Your task to perform on an android device: clear all cookies in the chrome app Image 0: 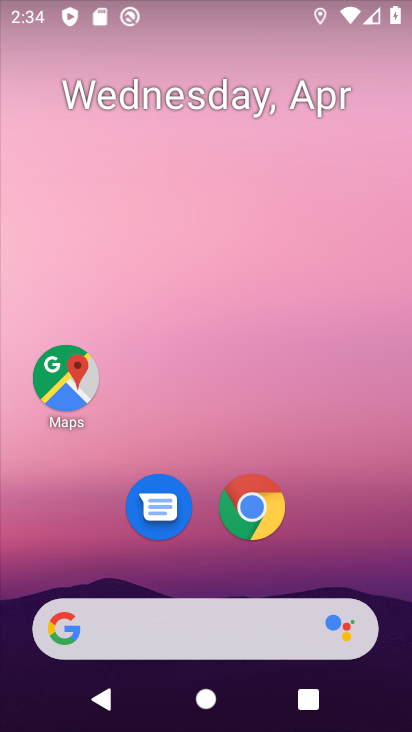
Step 0: drag from (343, 549) to (230, 249)
Your task to perform on an android device: clear all cookies in the chrome app Image 1: 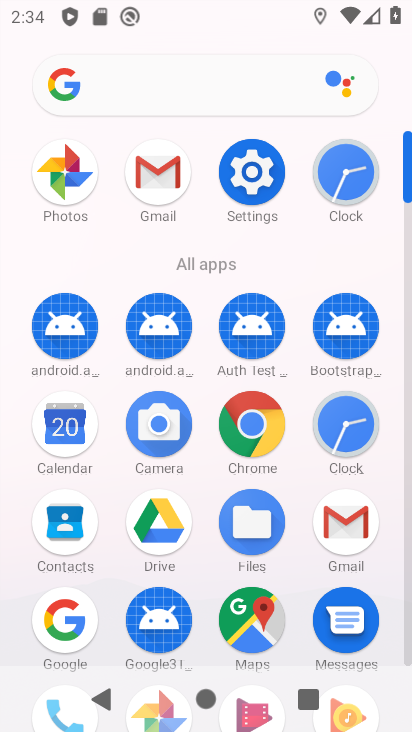
Step 1: click (257, 423)
Your task to perform on an android device: clear all cookies in the chrome app Image 2: 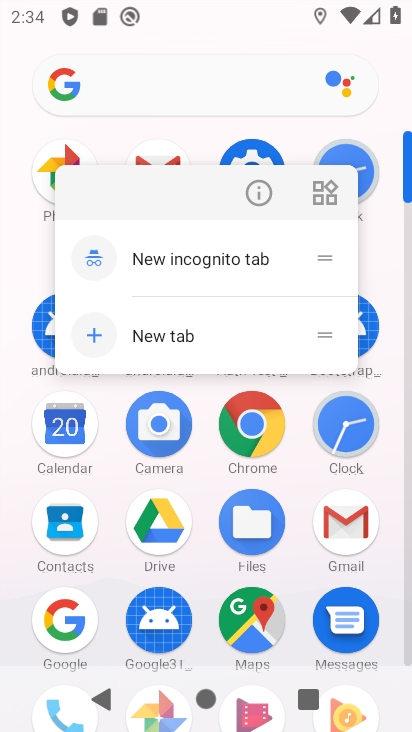
Step 2: click (257, 423)
Your task to perform on an android device: clear all cookies in the chrome app Image 3: 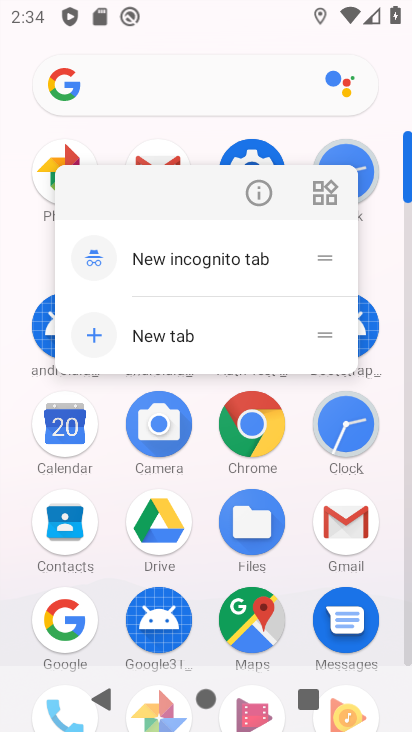
Step 3: click (259, 423)
Your task to perform on an android device: clear all cookies in the chrome app Image 4: 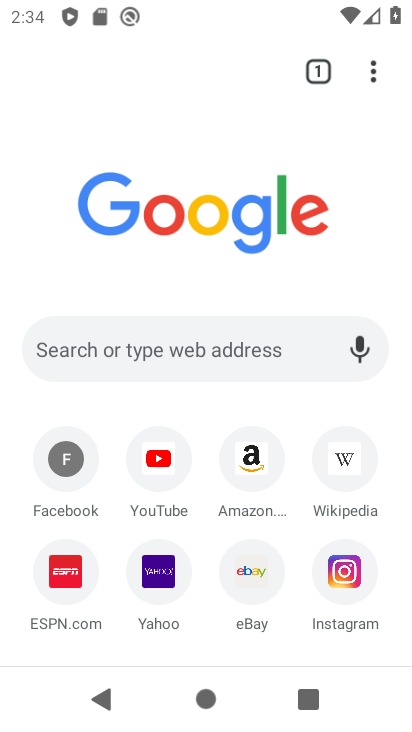
Step 4: click (372, 72)
Your task to perform on an android device: clear all cookies in the chrome app Image 5: 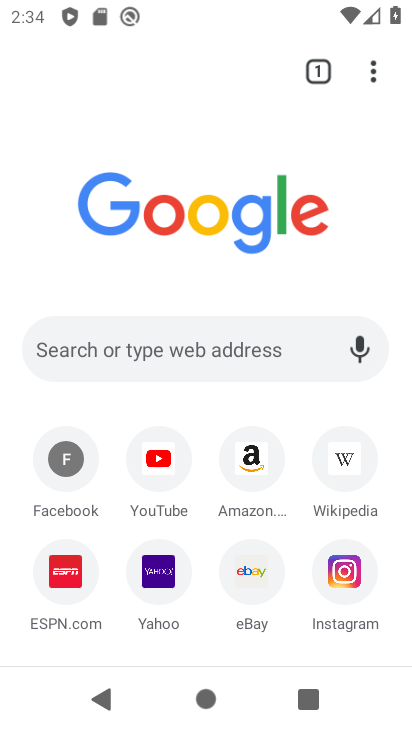
Step 5: drag from (373, 68) to (215, 501)
Your task to perform on an android device: clear all cookies in the chrome app Image 6: 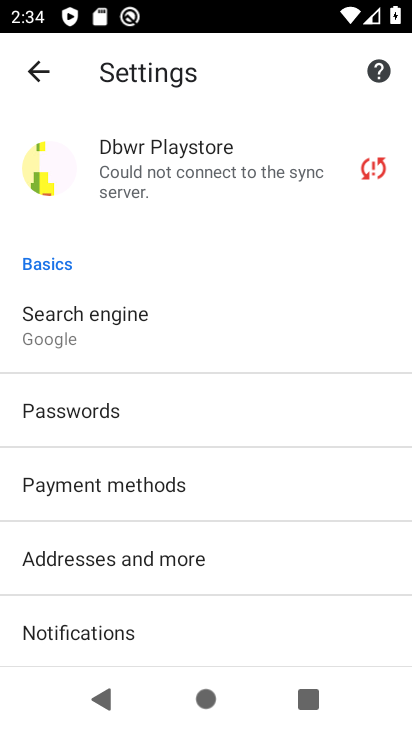
Step 6: drag from (152, 614) to (154, 206)
Your task to perform on an android device: clear all cookies in the chrome app Image 7: 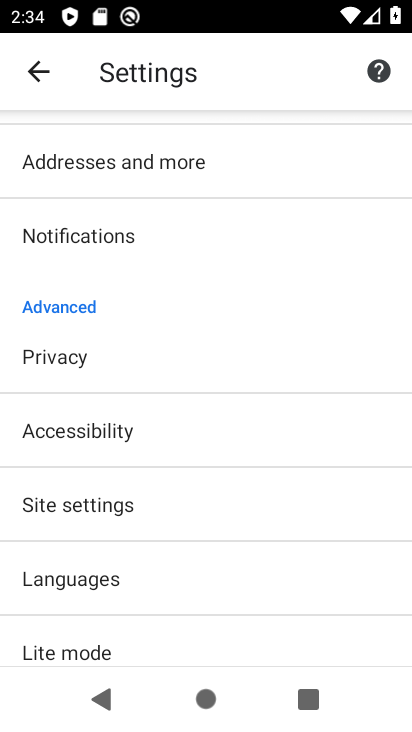
Step 7: click (55, 351)
Your task to perform on an android device: clear all cookies in the chrome app Image 8: 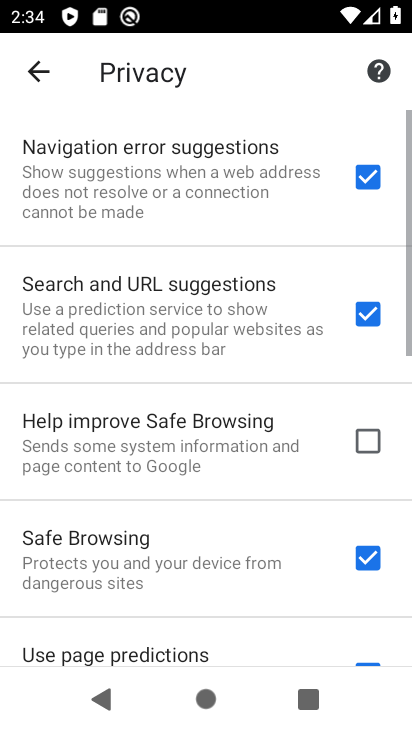
Step 8: drag from (103, 631) to (107, 128)
Your task to perform on an android device: clear all cookies in the chrome app Image 9: 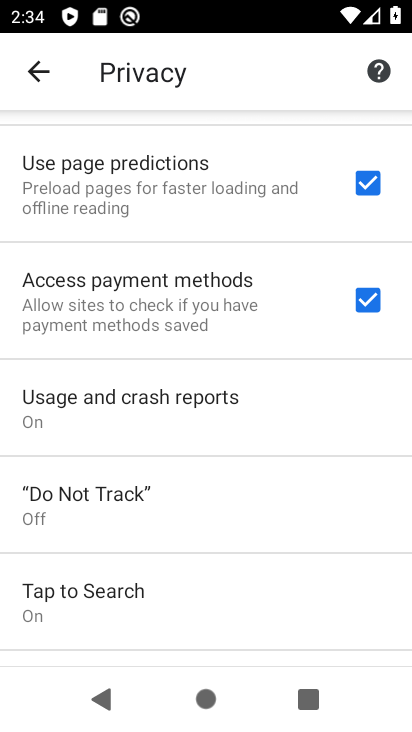
Step 9: drag from (120, 613) to (113, 207)
Your task to perform on an android device: clear all cookies in the chrome app Image 10: 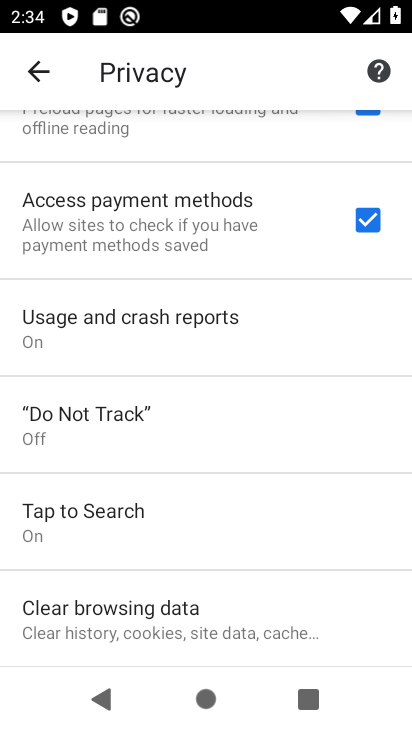
Step 10: click (127, 622)
Your task to perform on an android device: clear all cookies in the chrome app Image 11: 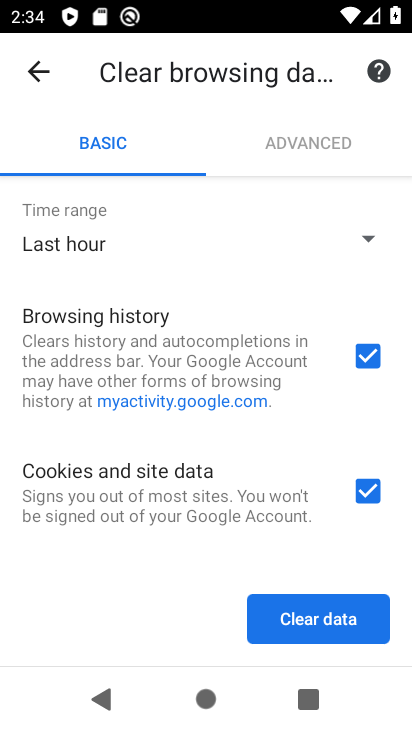
Step 11: click (317, 625)
Your task to perform on an android device: clear all cookies in the chrome app Image 12: 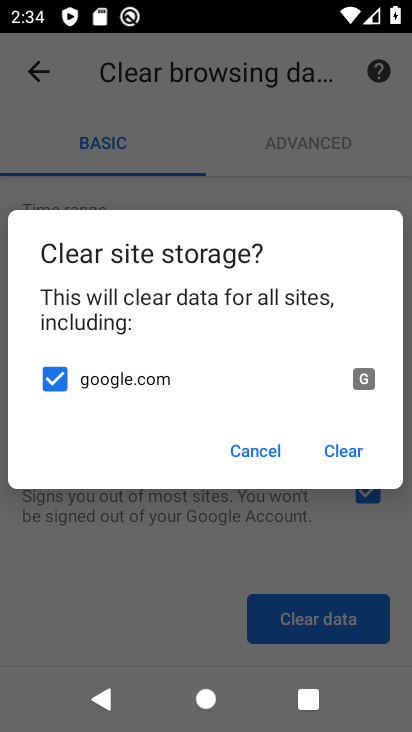
Step 12: click (347, 457)
Your task to perform on an android device: clear all cookies in the chrome app Image 13: 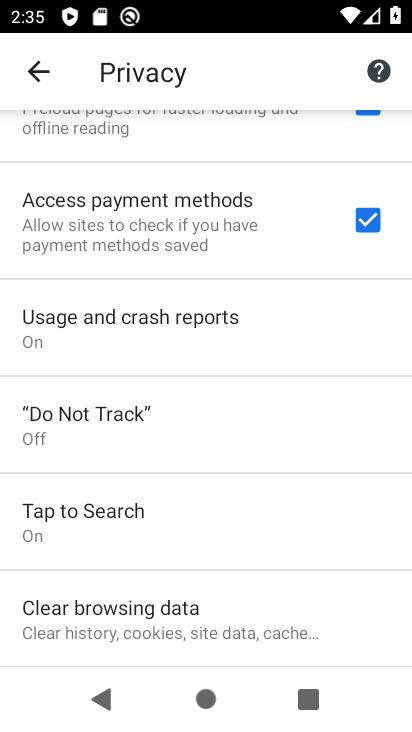
Step 13: task complete